Your task to perform on an android device: Go to CNN.com Image 0: 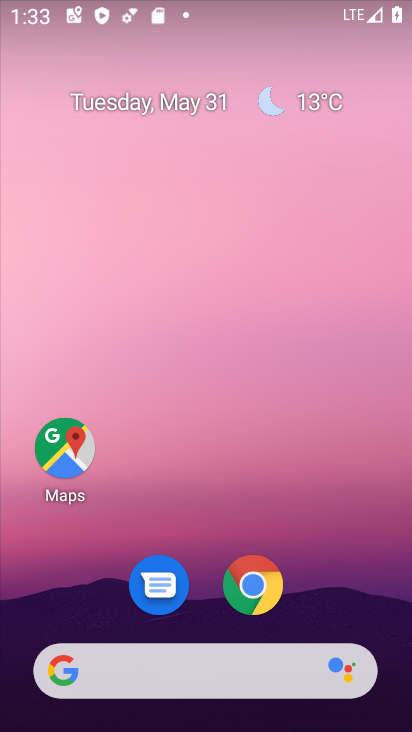
Step 0: click (242, 672)
Your task to perform on an android device: Go to CNN.com Image 1: 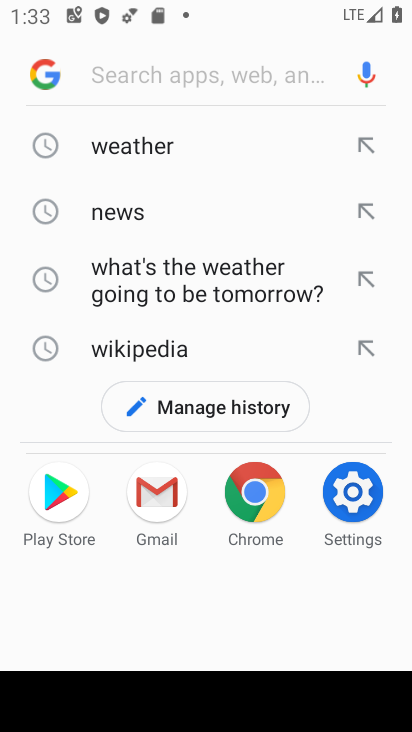
Step 1: type "cnn.com"
Your task to perform on an android device: Go to CNN.com Image 2: 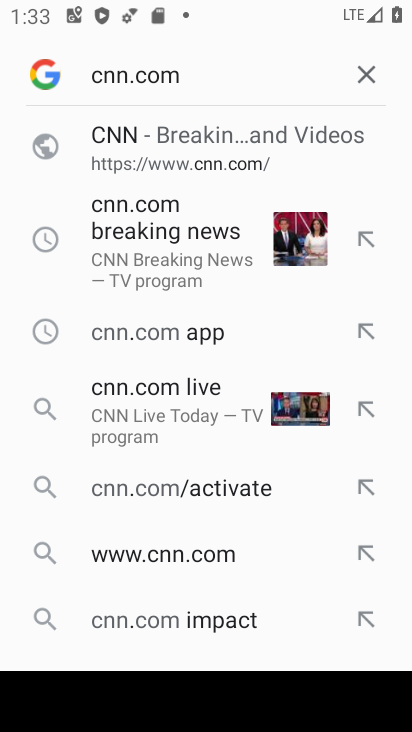
Step 2: click (151, 157)
Your task to perform on an android device: Go to CNN.com Image 3: 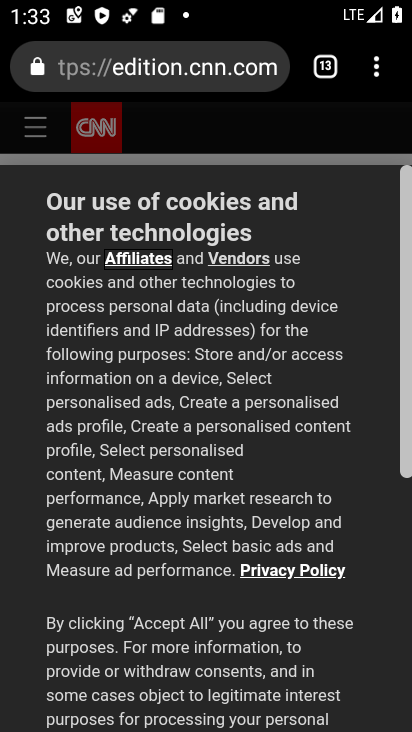
Step 3: task complete